Your task to perform on an android device: turn on javascript in the chrome app Image 0: 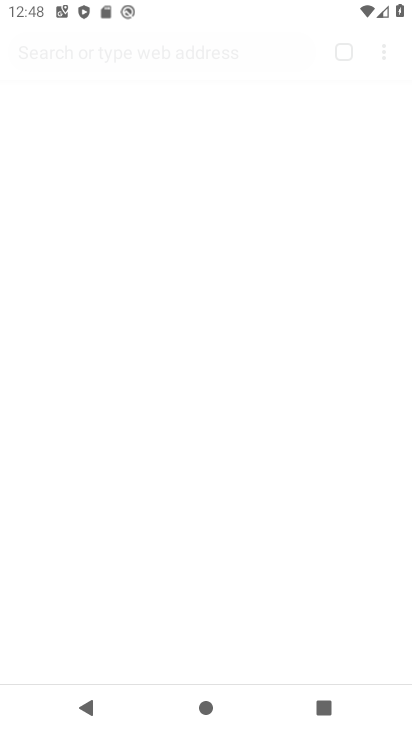
Step 0: drag from (298, 499) to (303, 428)
Your task to perform on an android device: turn on javascript in the chrome app Image 1: 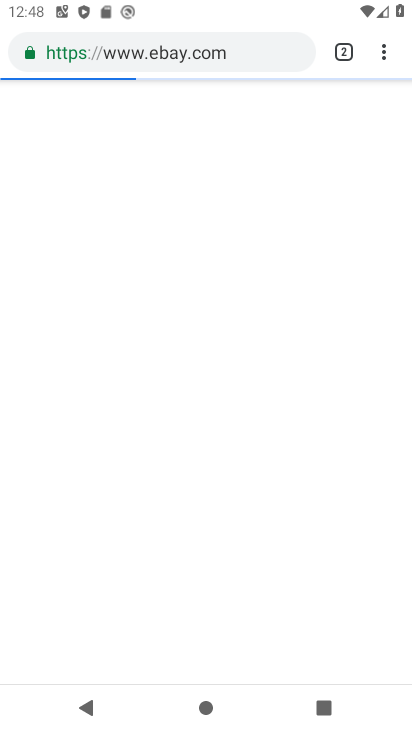
Step 1: press home button
Your task to perform on an android device: turn on javascript in the chrome app Image 2: 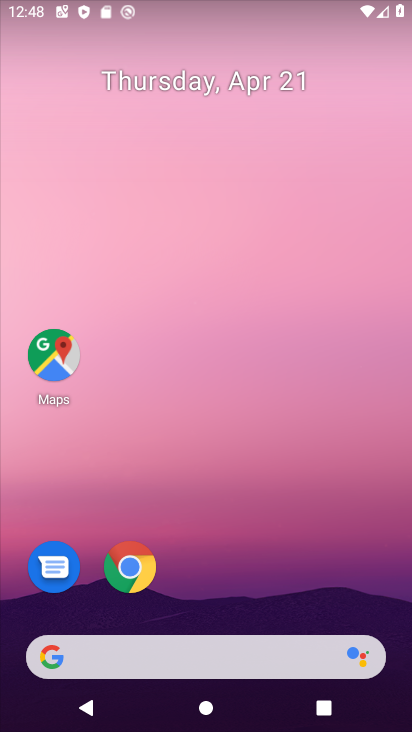
Step 2: click (121, 563)
Your task to perform on an android device: turn on javascript in the chrome app Image 3: 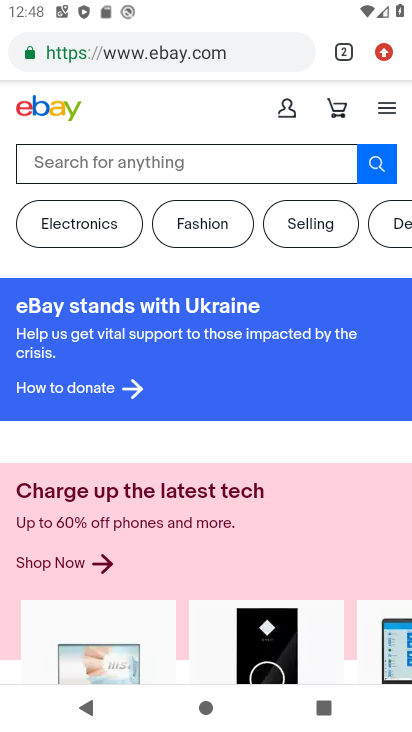
Step 3: click (390, 43)
Your task to perform on an android device: turn on javascript in the chrome app Image 4: 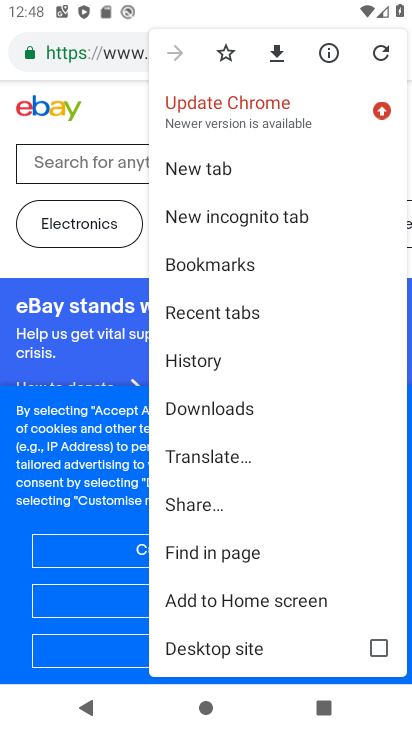
Step 4: drag from (316, 611) to (316, 203)
Your task to perform on an android device: turn on javascript in the chrome app Image 5: 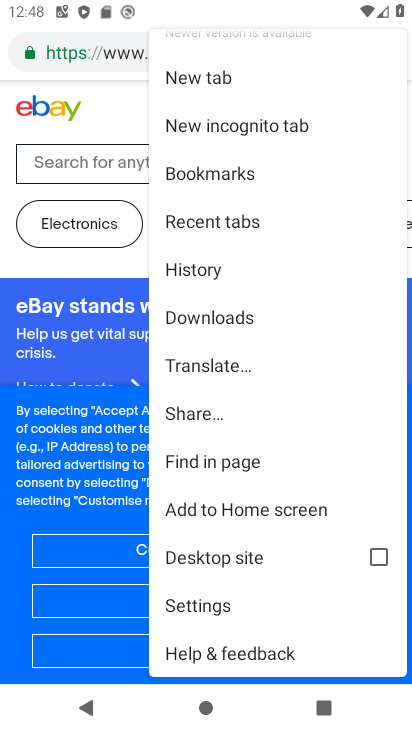
Step 5: click (200, 597)
Your task to perform on an android device: turn on javascript in the chrome app Image 6: 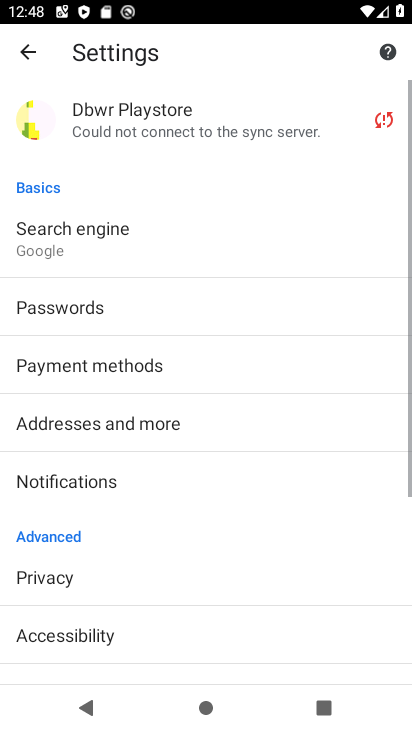
Step 6: drag from (161, 591) to (184, 90)
Your task to perform on an android device: turn on javascript in the chrome app Image 7: 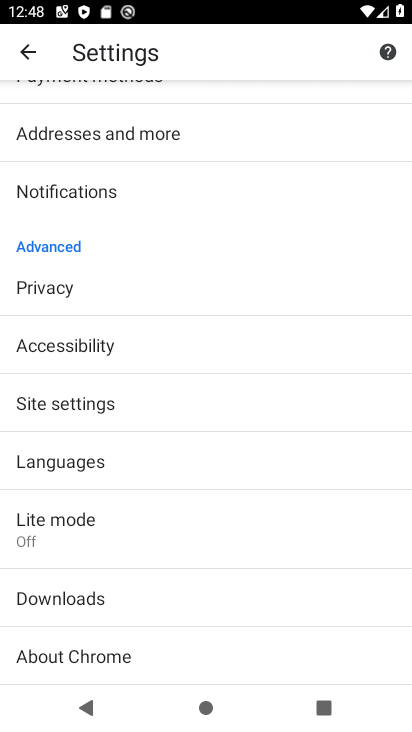
Step 7: click (73, 416)
Your task to perform on an android device: turn on javascript in the chrome app Image 8: 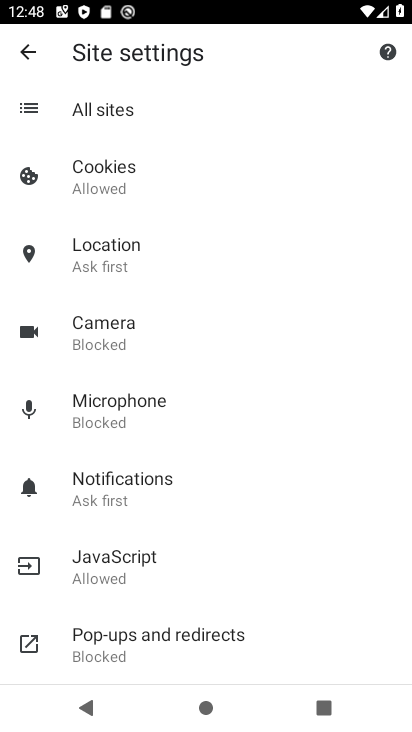
Step 8: click (138, 560)
Your task to perform on an android device: turn on javascript in the chrome app Image 9: 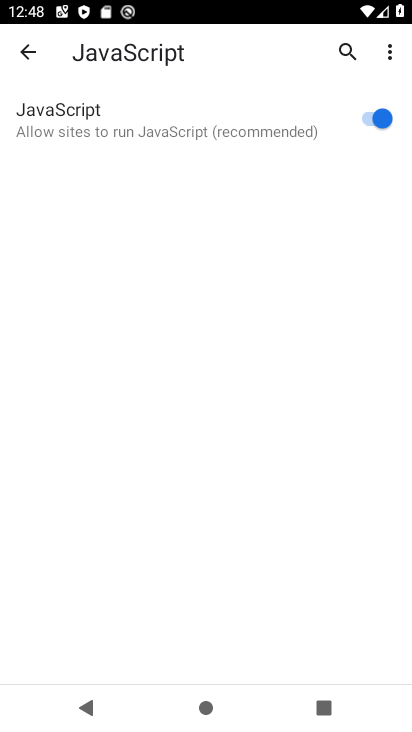
Step 9: task complete